Your task to perform on an android device: open app "Firefox Browser" (install if not already installed) Image 0: 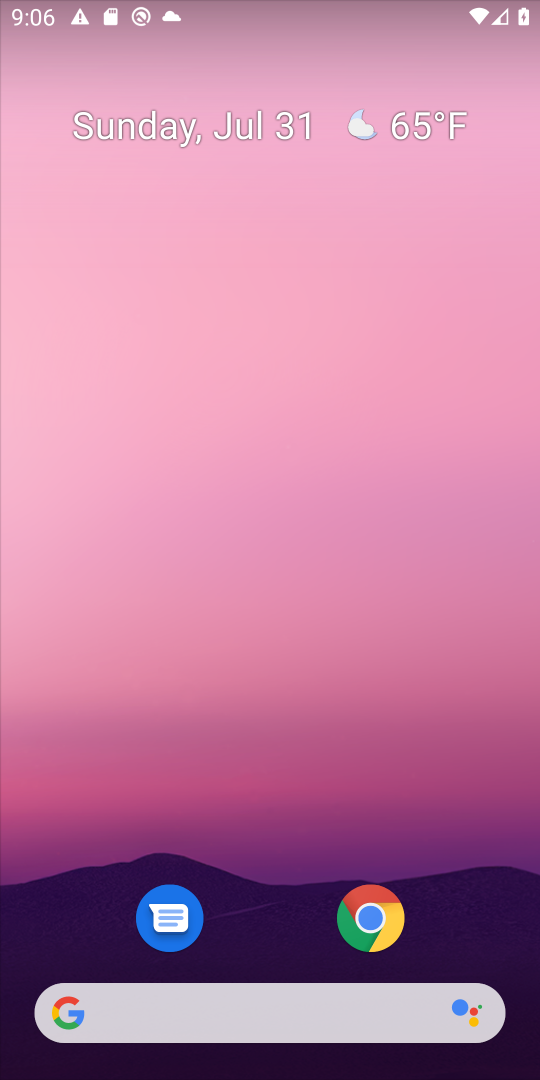
Step 0: drag from (218, 948) to (249, 57)
Your task to perform on an android device: open app "Firefox Browser" (install if not already installed) Image 1: 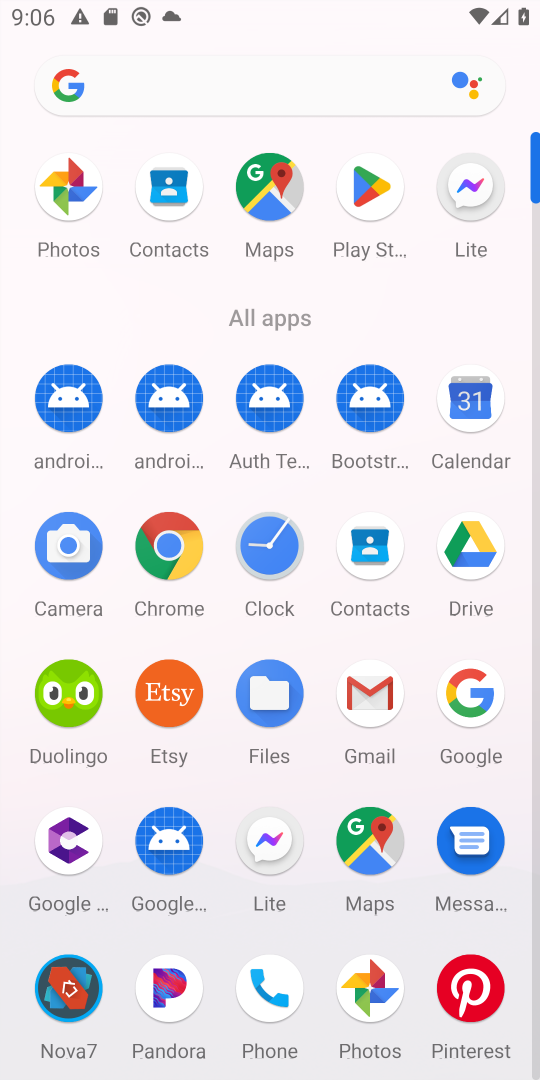
Step 1: click (365, 208)
Your task to perform on an android device: open app "Firefox Browser" (install if not already installed) Image 2: 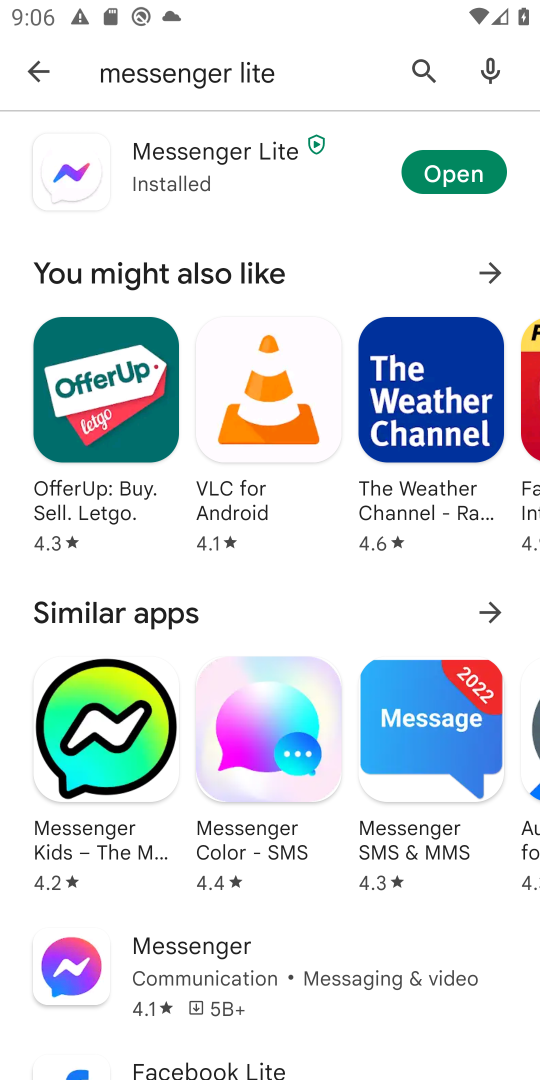
Step 2: click (414, 54)
Your task to perform on an android device: open app "Firefox Browser" (install if not already installed) Image 3: 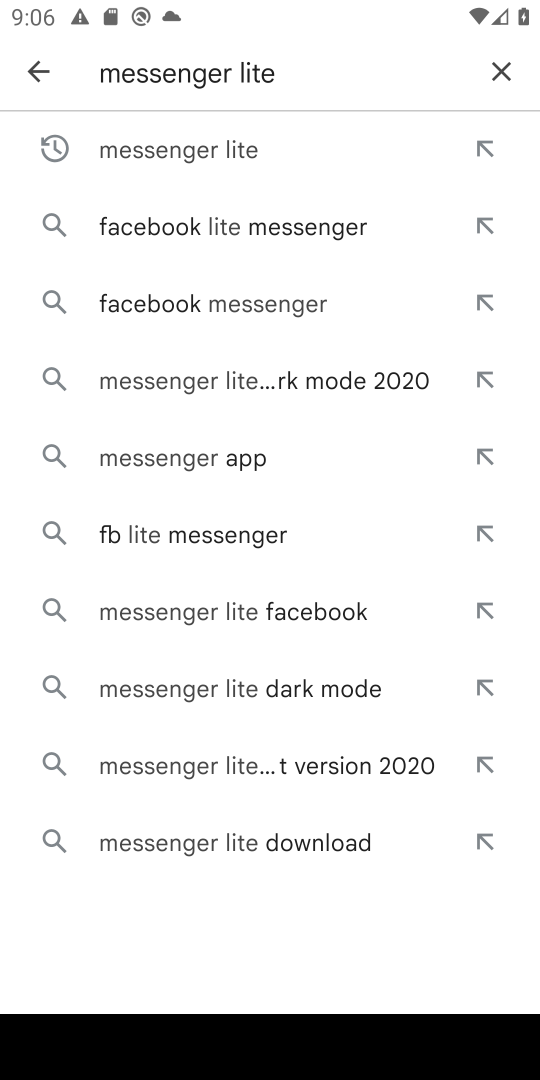
Step 3: click (508, 68)
Your task to perform on an android device: open app "Firefox Browser" (install if not already installed) Image 4: 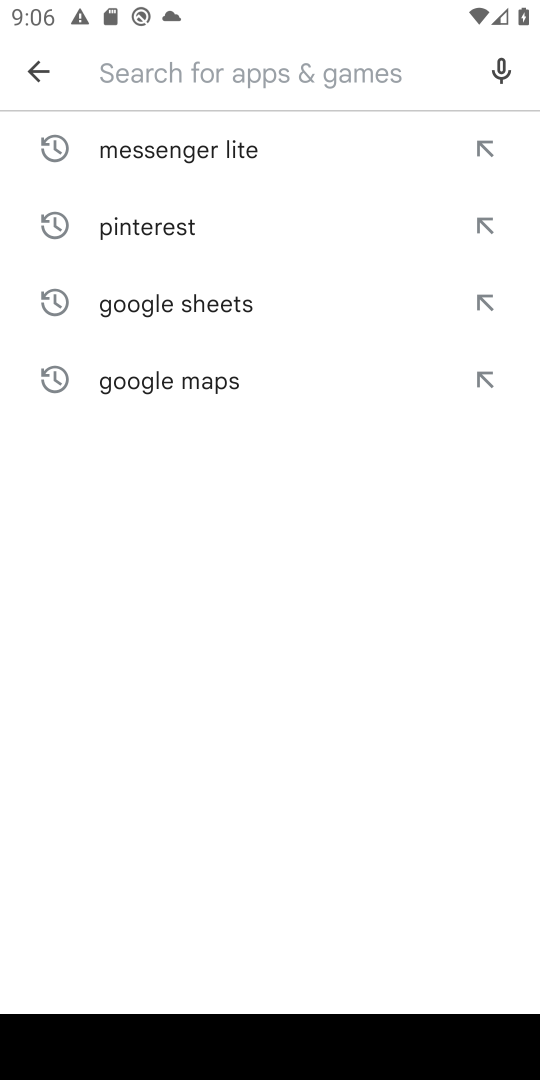
Step 4: type "Firefox Browser"
Your task to perform on an android device: open app "Firefox Browser" (install if not already installed) Image 5: 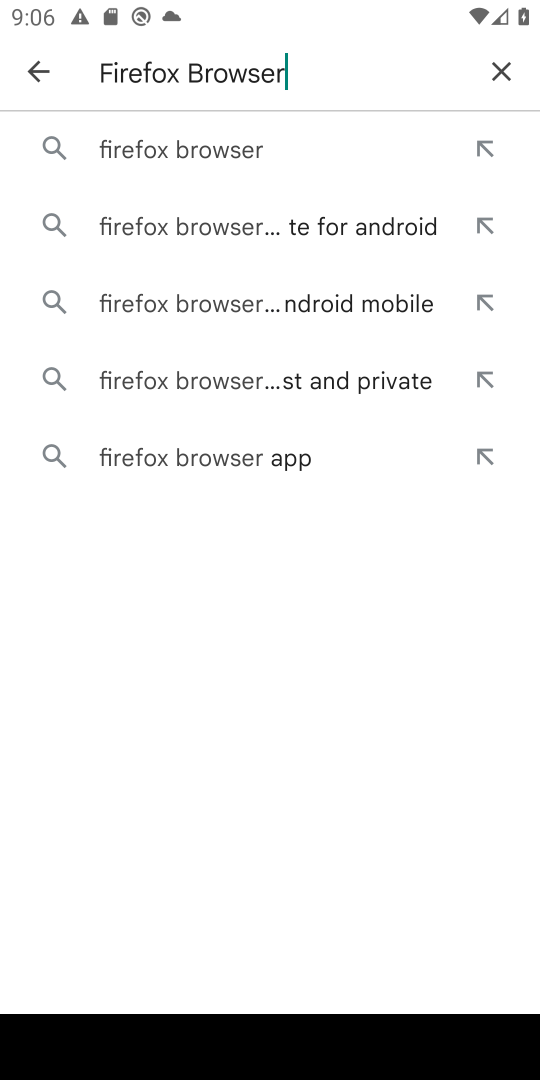
Step 5: click (176, 173)
Your task to perform on an android device: open app "Firefox Browser" (install if not already installed) Image 6: 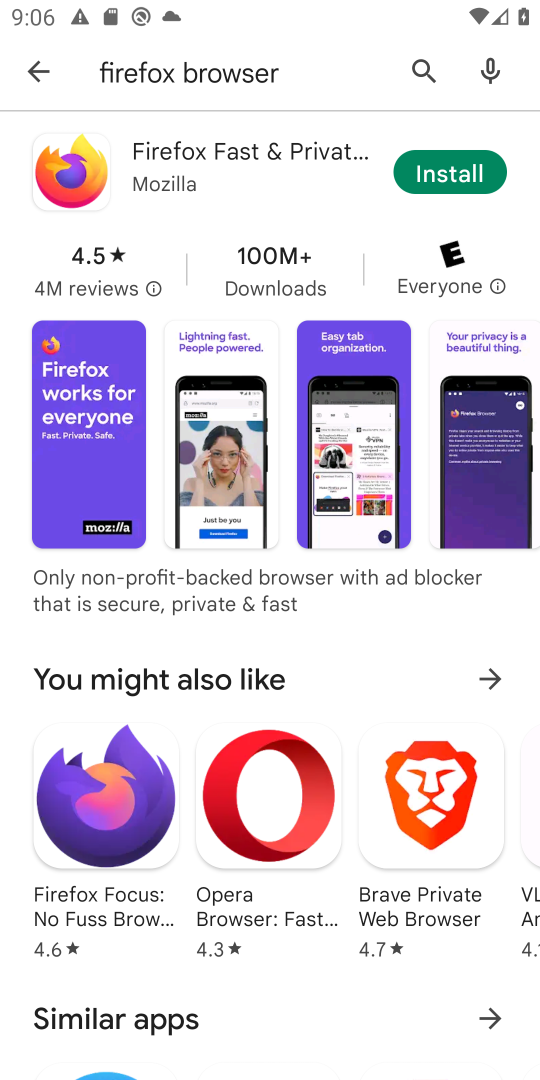
Step 6: click (456, 160)
Your task to perform on an android device: open app "Firefox Browser" (install if not already installed) Image 7: 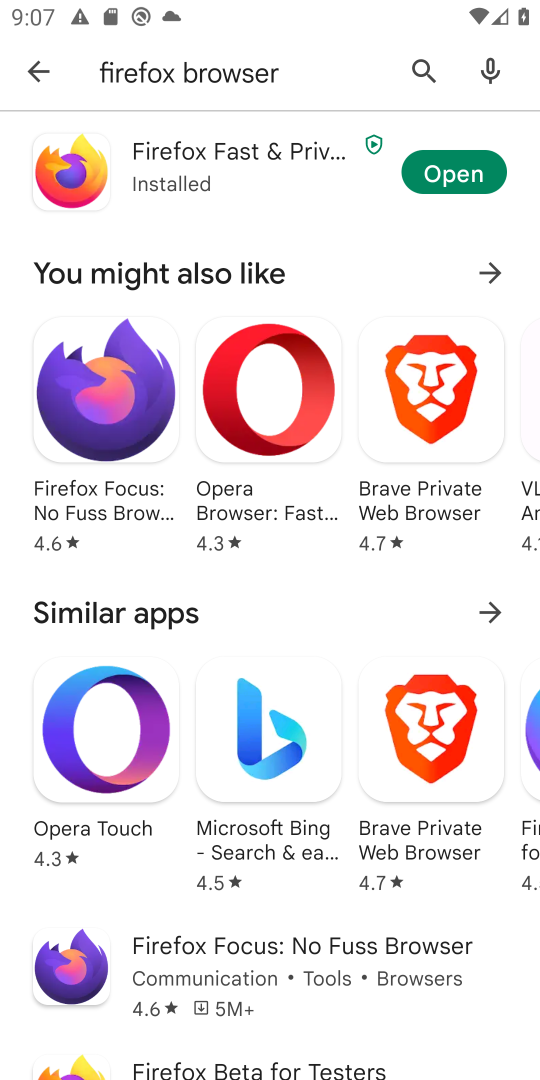
Step 7: click (439, 183)
Your task to perform on an android device: open app "Firefox Browser" (install if not already installed) Image 8: 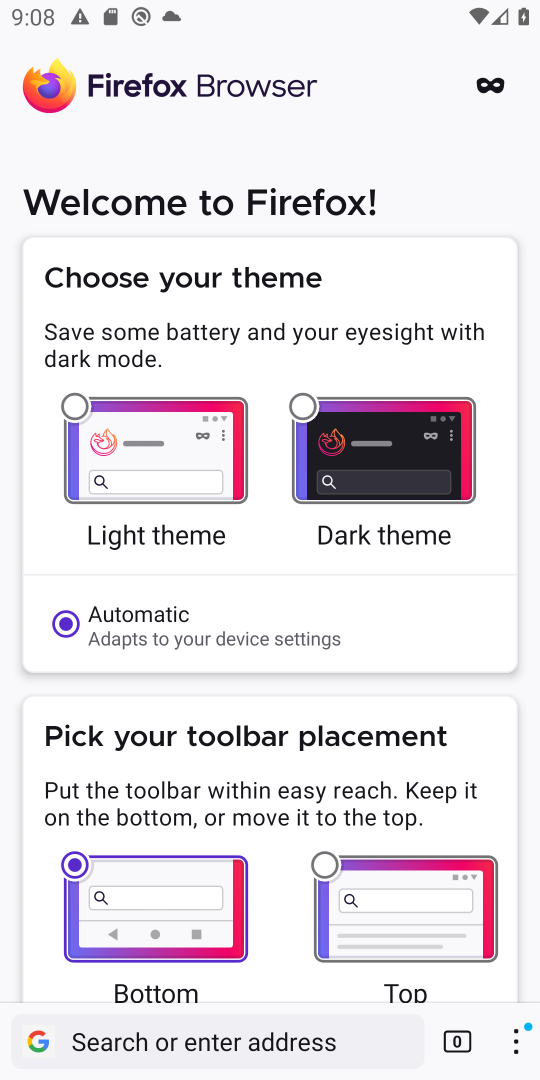
Step 8: task complete